Your task to perform on an android device: set default search engine in the chrome app Image 0: 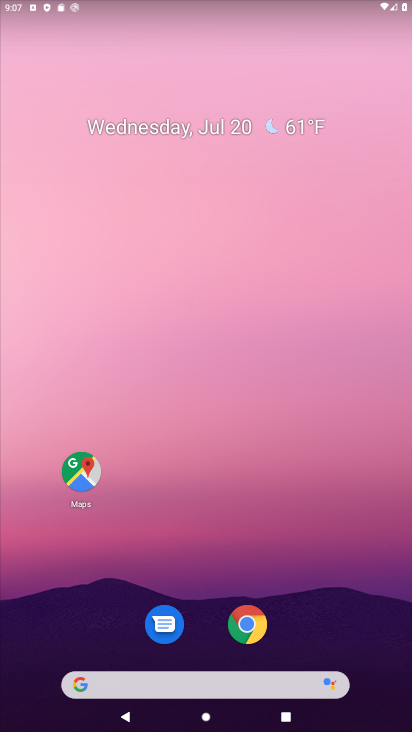
Step 0: click (247, 627)
Your task to perform on an android device: set default search engine in the chrome app Image 1: 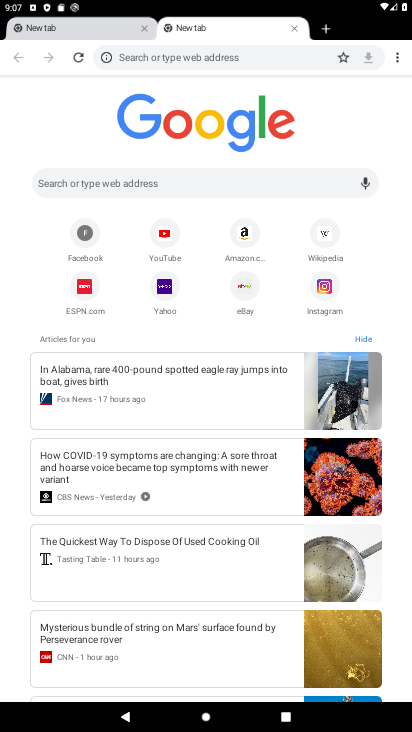
Step 1: click (393, 51)
Your task to perform on an android device: set default search engine in the chrome app Image 2: 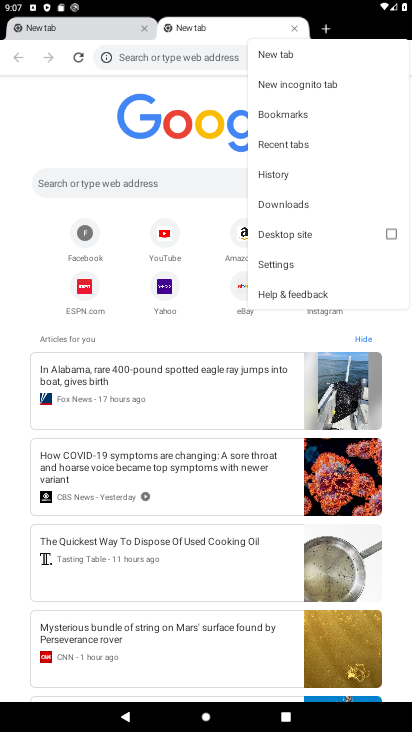
Step 2: click (278, 268)
Your task to perform on an android device: set default search engine in the chrome app Image 3: 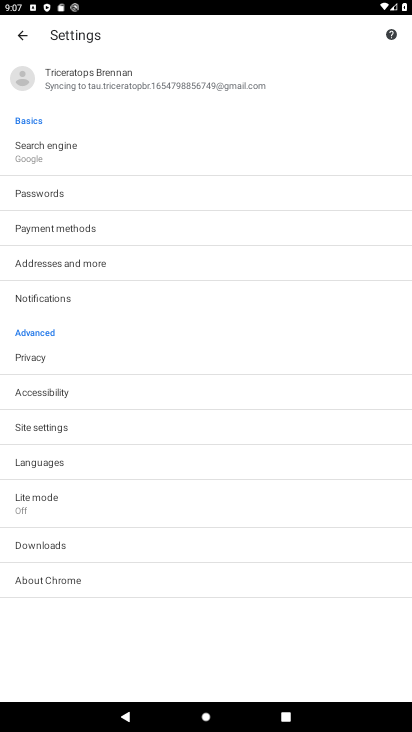
Step 3: click (105, 157)
Your task to perform on an android device: set default search engine in the chrome app Image 4: 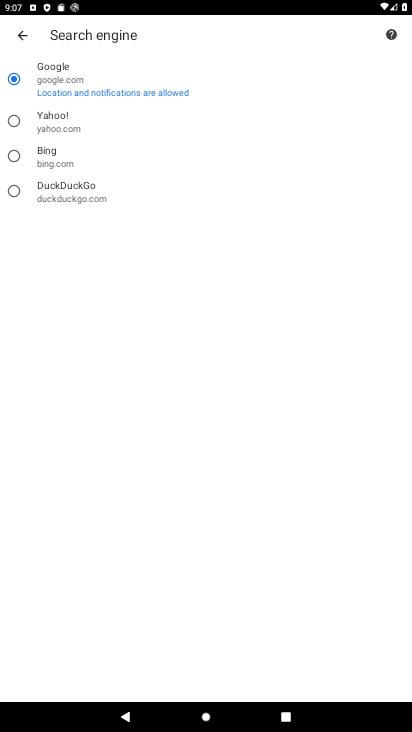
Step 4: task complete